Your task to perform on an android device: turn on priority inbox in the gmail app Image 0: 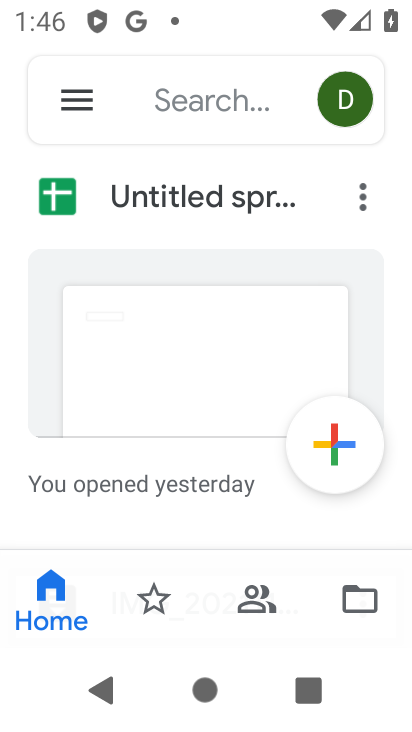
Step 0: press home button
Your task to perform on an android device: turn on priority inbox in the gmail app Image 1: 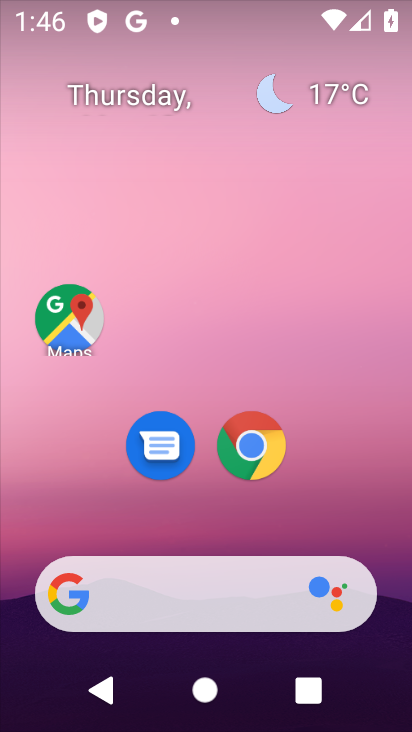
Step 1: drag from (314, 497) to (208, 131)
Your task to perform on an android device: turn on priority inbox in the gmail app Image 2: 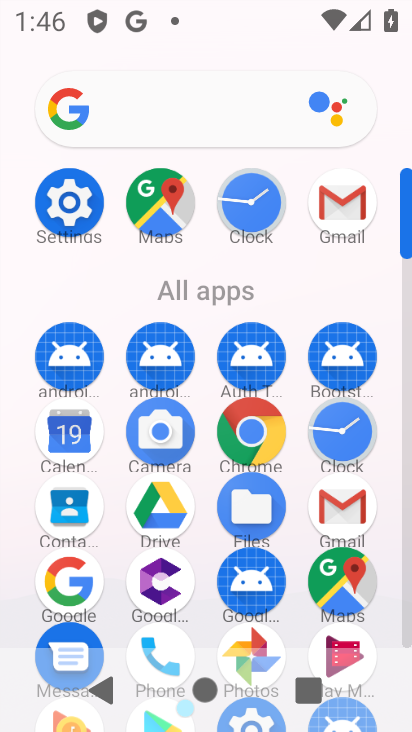
Step 2: click (336, 500)
Your task to perform on an android device: turn on priority inbox in the gmail app Image 3: 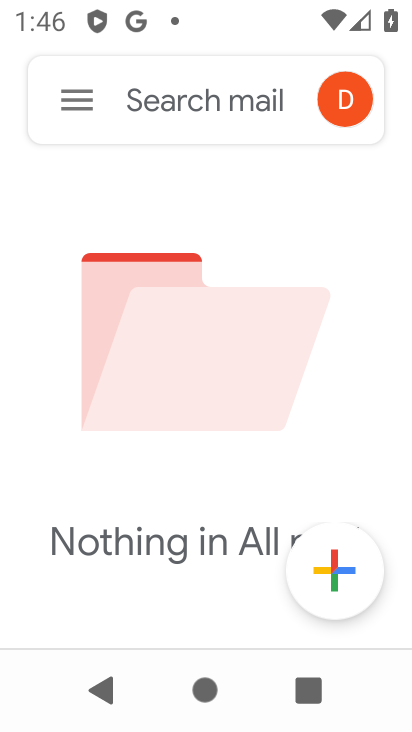
Step 3: click (83, 91)
Your task to perform on an android device: turn on priority inbox in the gmail app Image 4: 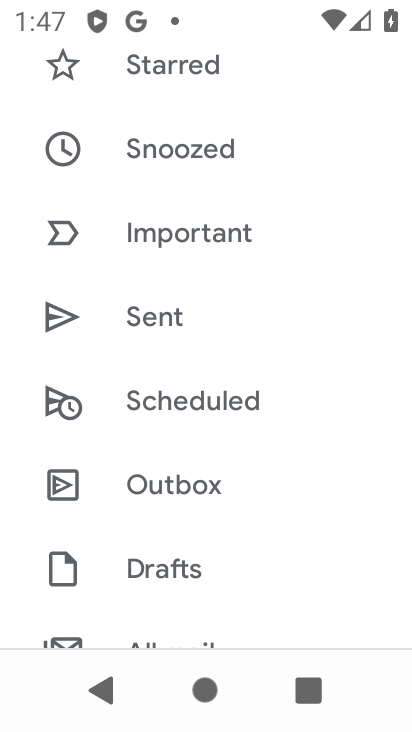
Step 4: drag from (308, 312) to (309, 95)
Your task to perform on an android device: turn on priority inbox in the gmail app Image 5: 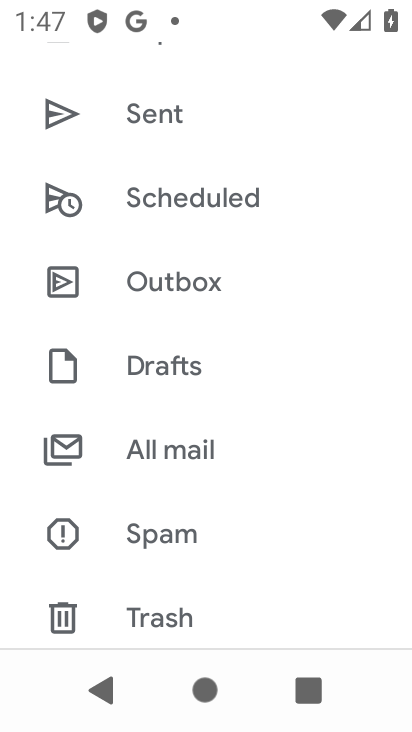
Step 5: drag from (250, 510) to (259, 164)
Your task to perform on an android device: turn on priority inbox in the gmail app Image 6: 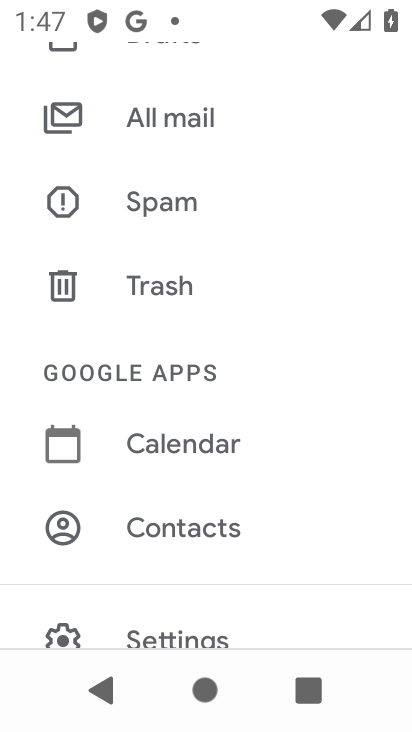
Step 6: drag from (304, 487) to (316, 201)
Your task to perform on an android device: turn on priority inbox in the gmail app Image 7: 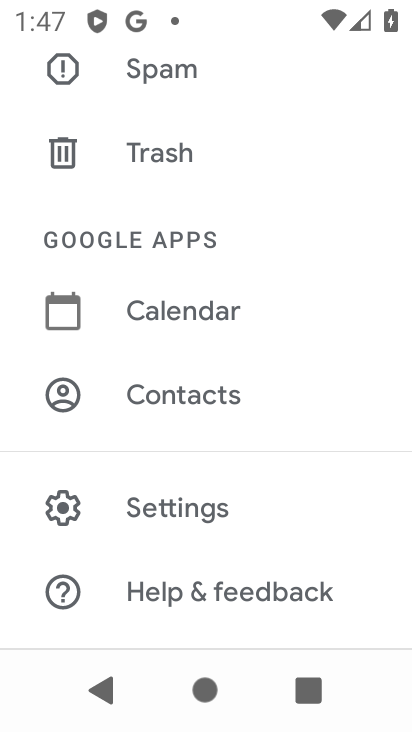
Step 7: click (164, 507)
Your task to perform on an android device: turn on priority inbox in the gmail app Image 8: 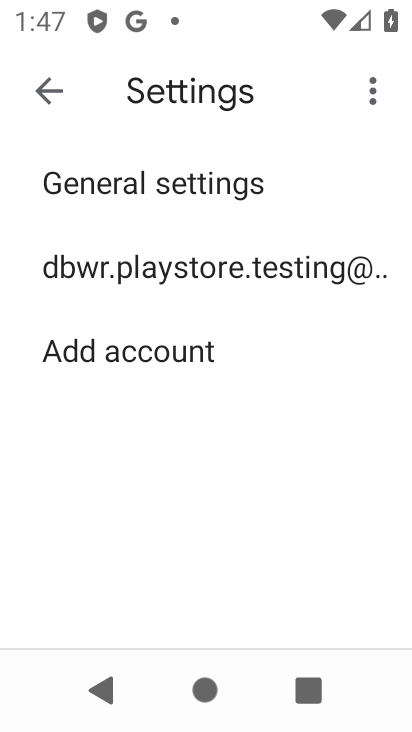
Step 8: click (158, 263)
Your task to perform on an android device: turn on priority inbox in the gmail app Image 9: 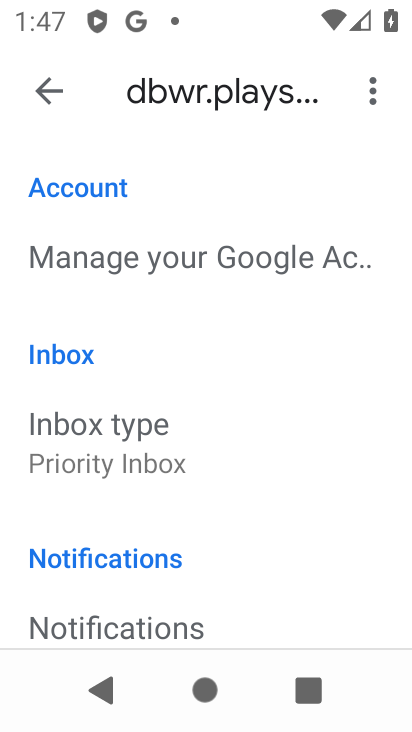
Step 9: click (114, 419)
Your task to perform on an android device: turn on priority inbox in the gmail app Image 10: 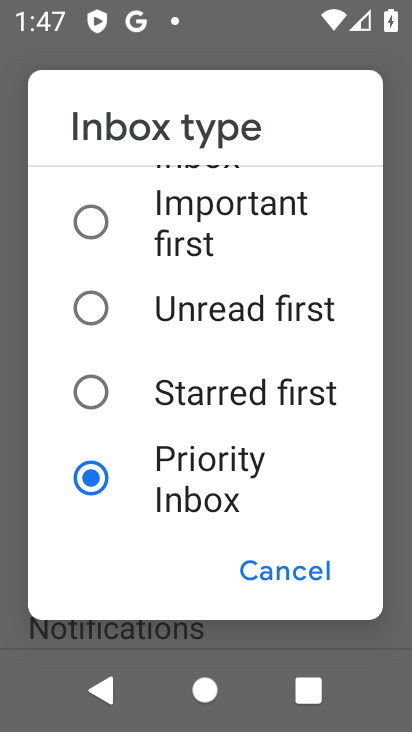
Step 10: task complete